Your task to perform on an android device: open chrome privacy settings Image 0: 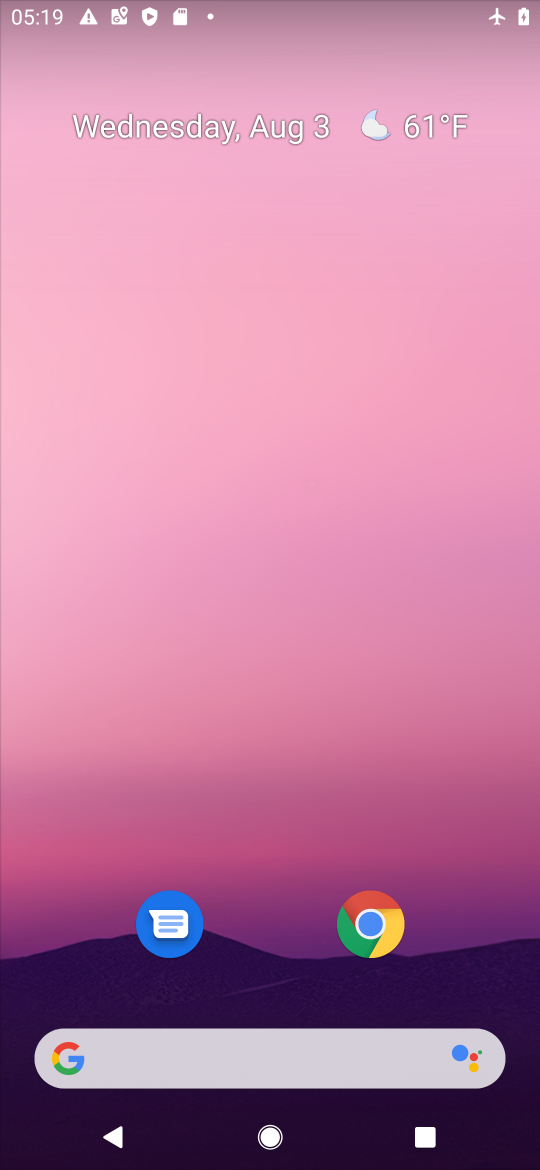
Step 0: click (358, 929)
Your task to perform on an android device: open chrome privacy settings Image 1: 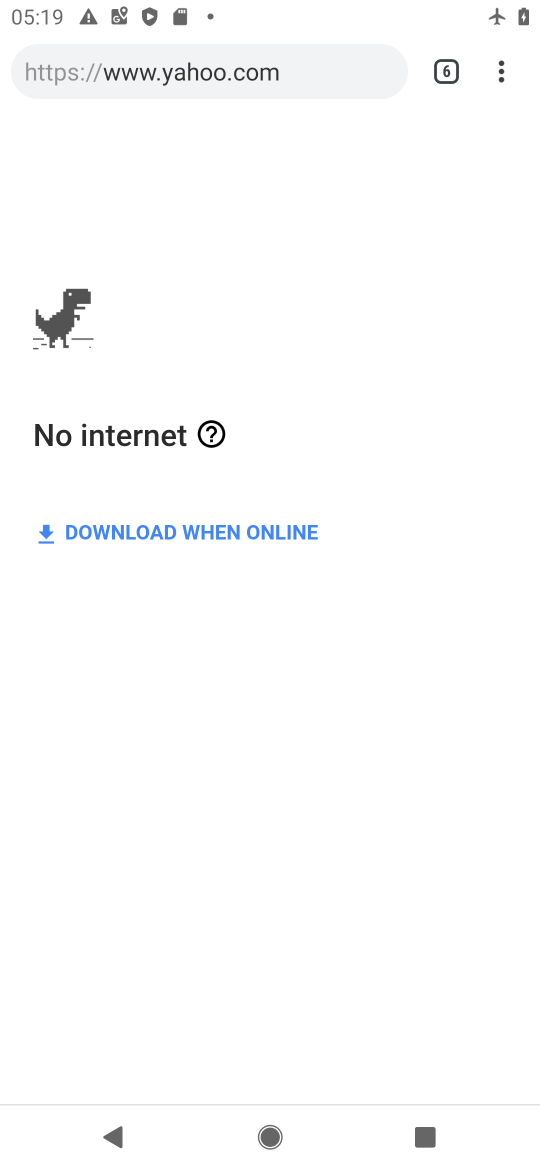
Step 1: click (499, 79)
Your task to perform on an android device: open chrome privacy settings Image 2: 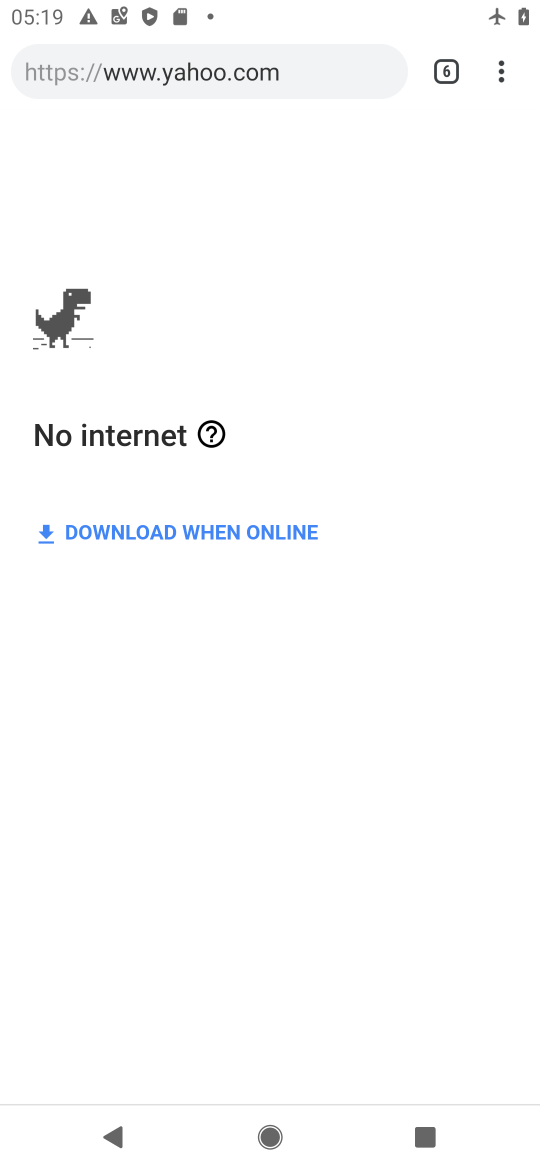
Step 2: click (506, 81)
Your task to perform on an android device: open chrome privacy settings Image 3: 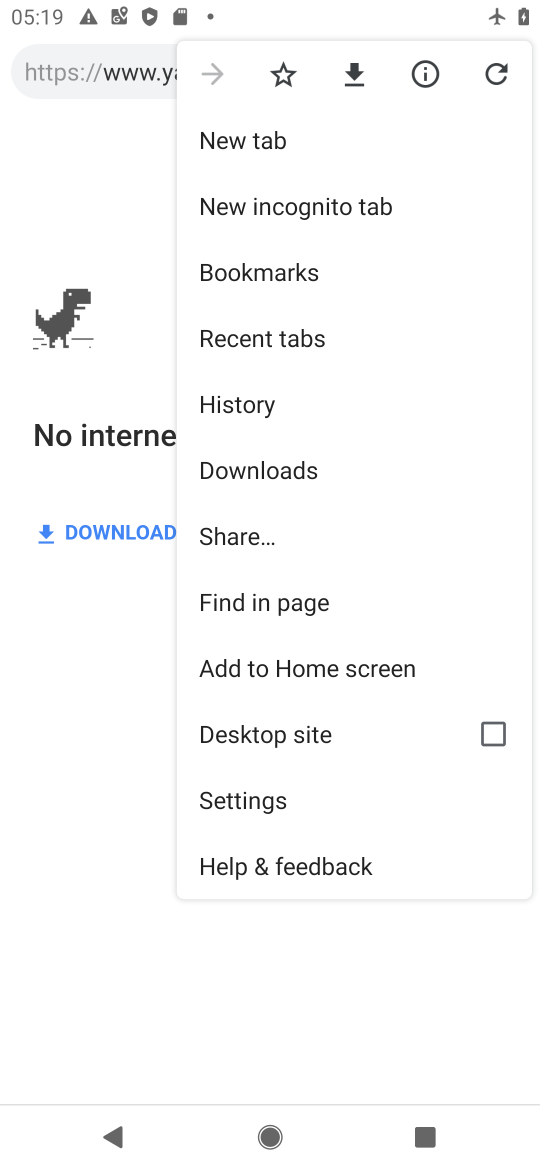
Step 3: click (261, 798)
Your task to perform on an android device: open chrome privacy settings Image 4: 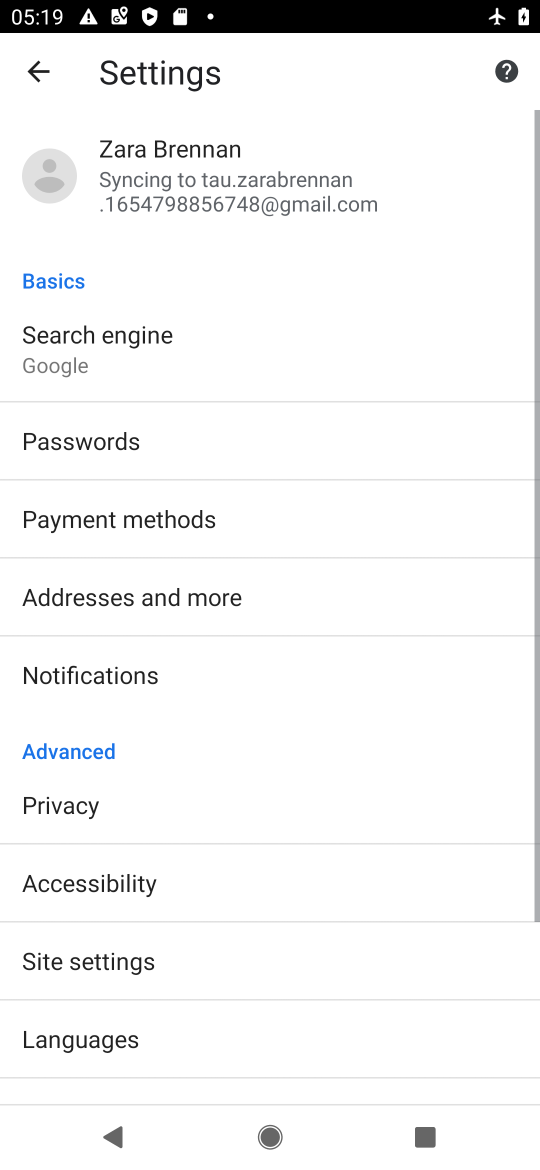
Step 4: click (204, 797)
Your task to perform on an android device: open chrome privacy settings Image 5: 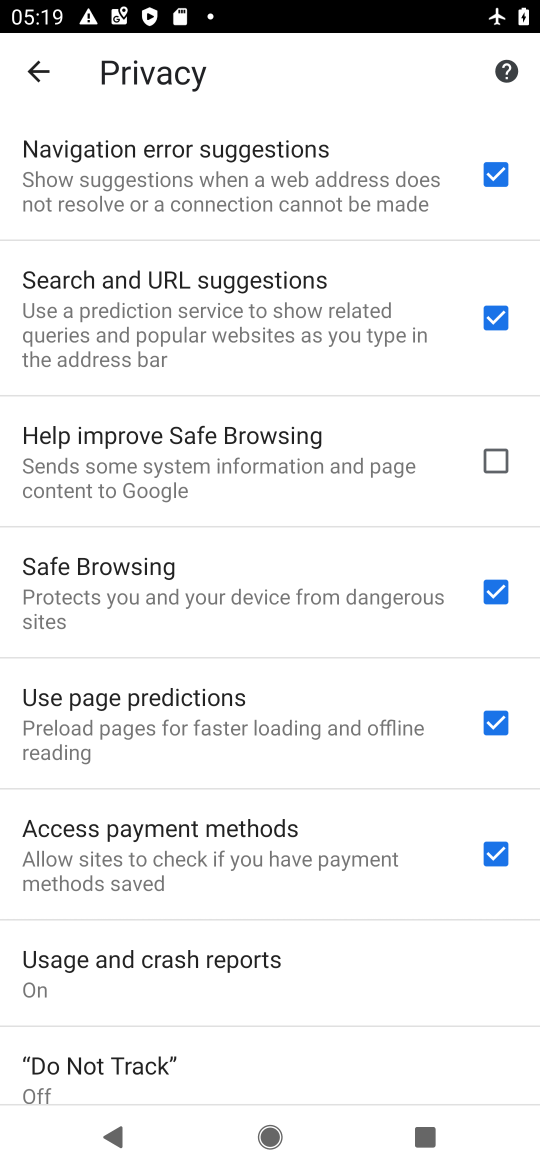
Step 5: task complete